Your task to perform on an android device: turn on the 12-hour format for clock Image 0: 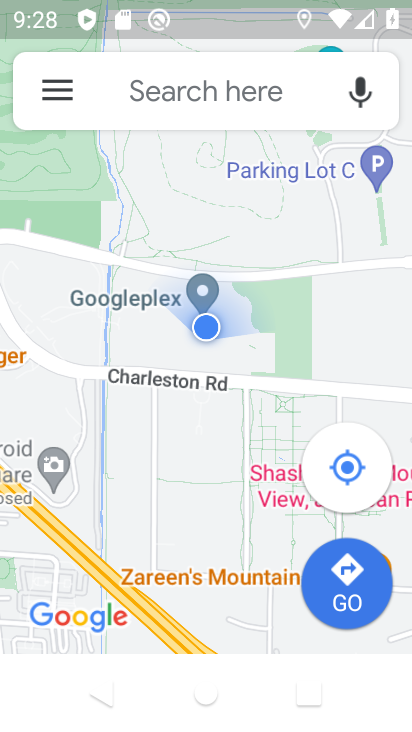
Step 0: press home button
Your task to perform on an android device: turn on the 12-hour format for clock Image 1: 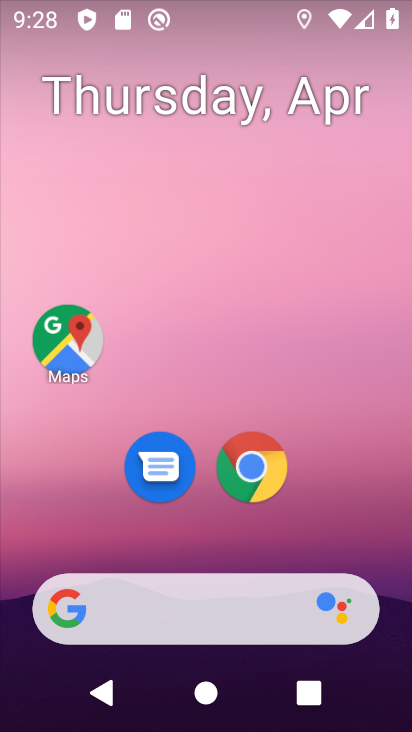
Step 1: drag from (402, 573) to (349, 246)
Your task to perform on an android device: turn on the 12-hour format for clock Image 2: 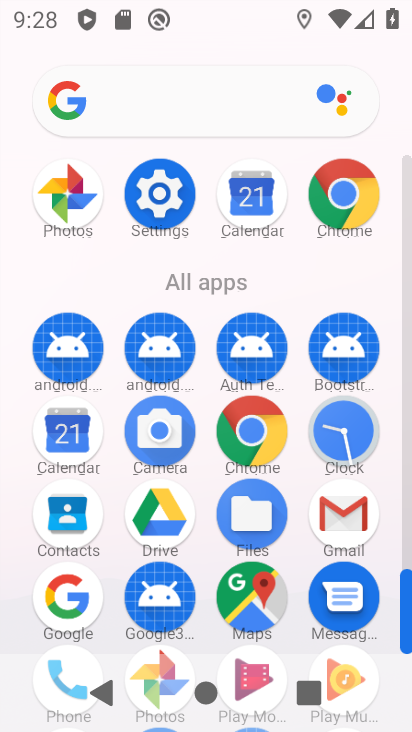
Step 2: click (356, 430)
Your task to perform on an android device: turn on the 12-hour format for clock Image 3: 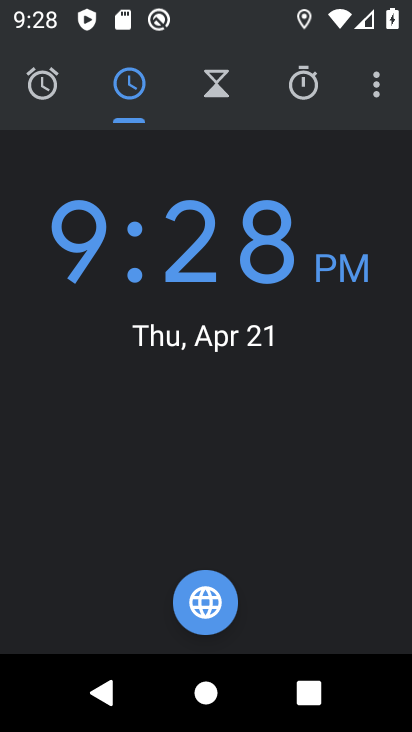
Step 3: click (374, 109)
Your task to perform on an android device: turn on the 12-hour format for clock Image 4: 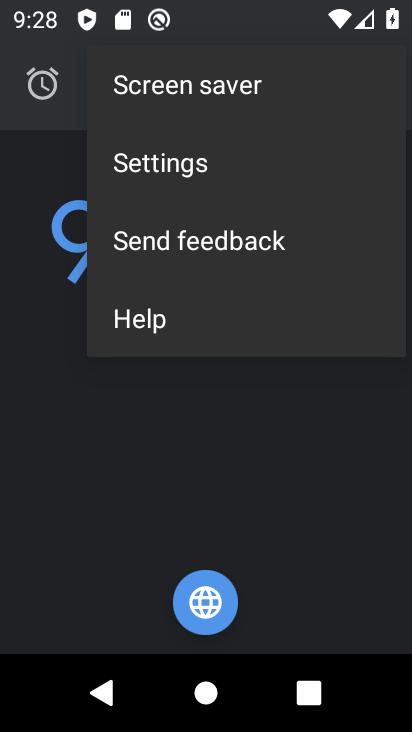
Step 4: click (345, 152)
Your task to perform on an android device: turn on the 12-hour format for clock Image 5: 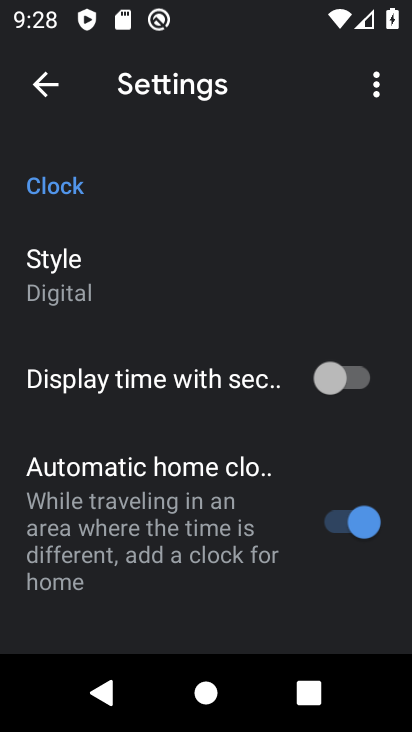
Step 5: drag from (267, 516) to (267, 152)
Your task to perform on an android device: turn on the 12-hour format for clock Image 6: 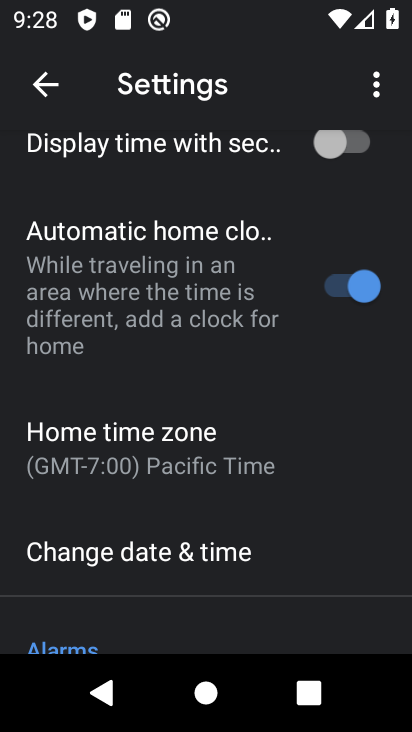
Step 6: drag from (260, 509) to (252, 178)
Your task to perform on an android device: turn on the 12-hour format for clock Image 7: 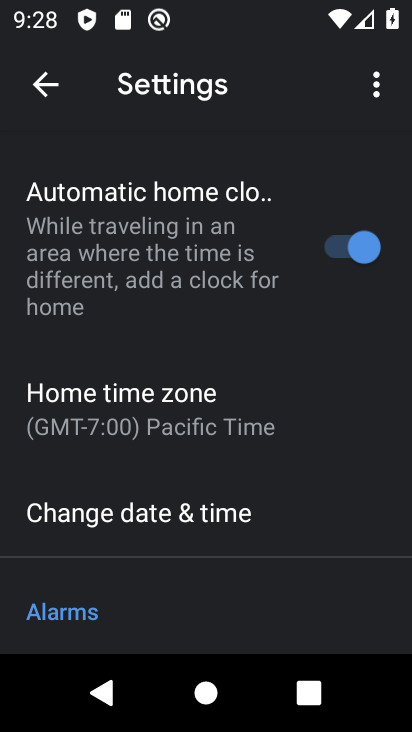
Step 7: click (248, 529)
Your task to perform on an android device: turn on the 12-hour format for clock Image 8: 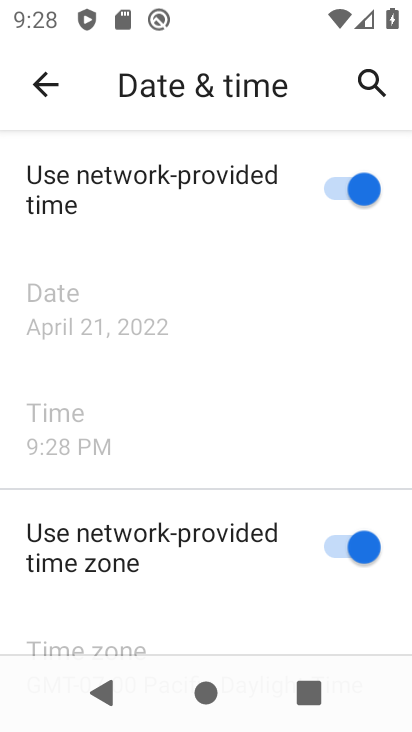
Step 8: task complete